Your task to perform on an android device: Go to Google maps Image 0: 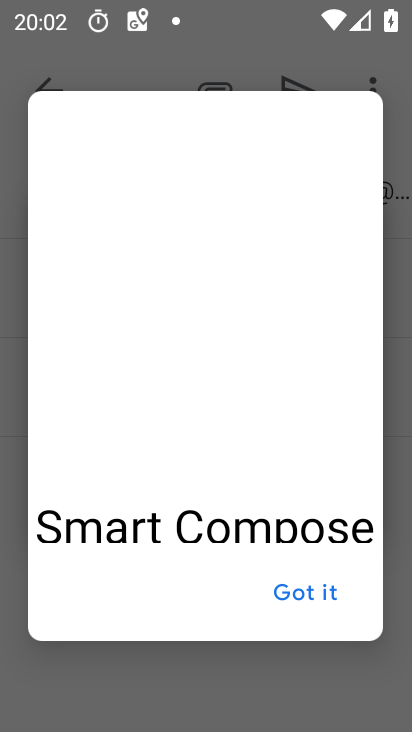
Step 0: press home button
Your task to perform on an android device: Go to Google maps Image 1: 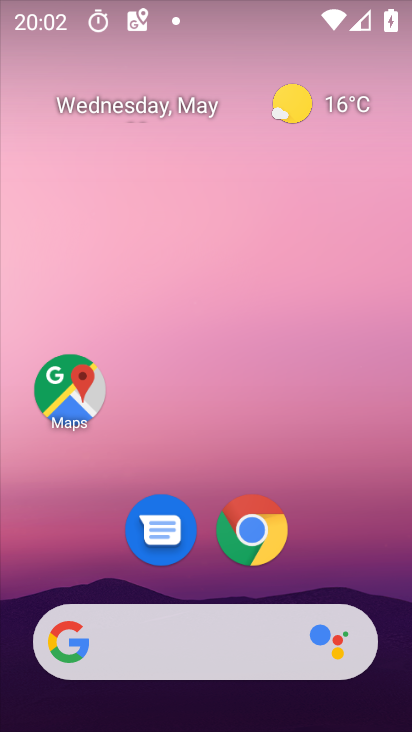
Step 1: click (69, 390)
Your task to perform on an android device: Go to Google maps Image 2: 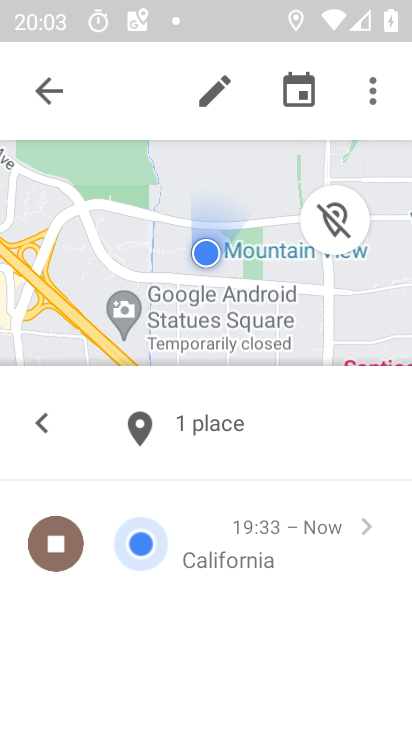
Step 2: task complete